Your task to perform on an android device: What is the recent news? Image 0: 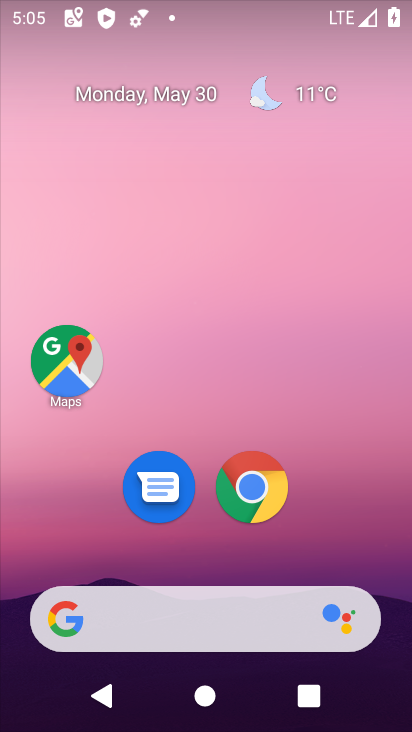
Step 0: drag from (13, 246) to (393, 242)
Your task to perform on an android device: What is the recent news? Image 1: 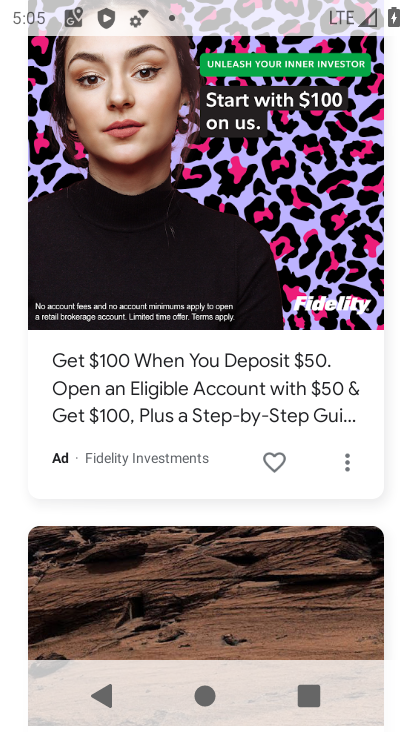
Step 1: task complete